Your task to perform on an android device: Open battery settings Image 0: 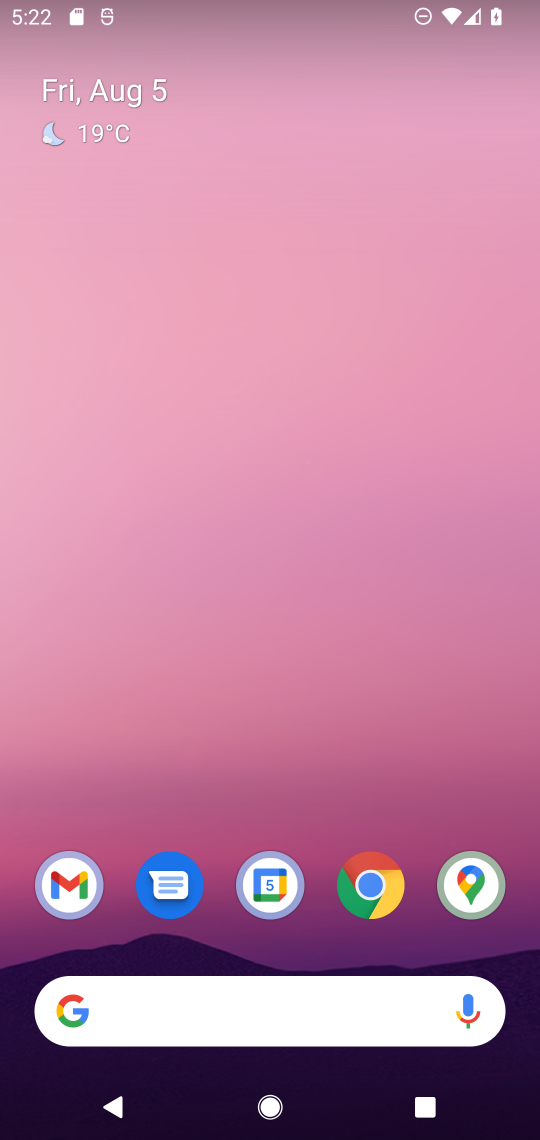
Step 0: drag from (305, 955) to (305, 38)
Your task to perform on an android device: Open battery settings Image 1: 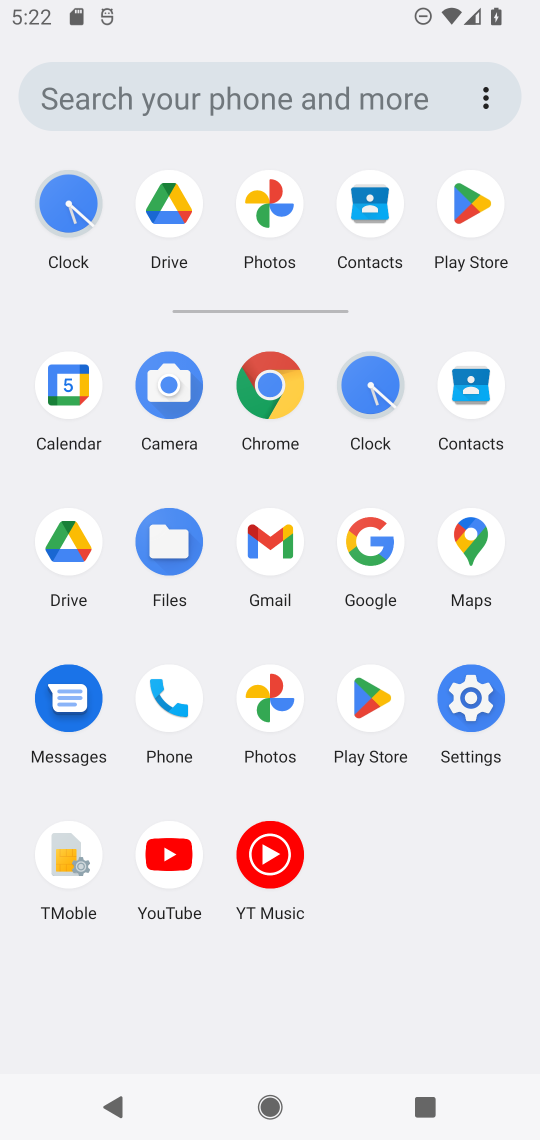
Step 1: click (484, 692)
Your task to perform on an android device: Open battery settings Image 2: 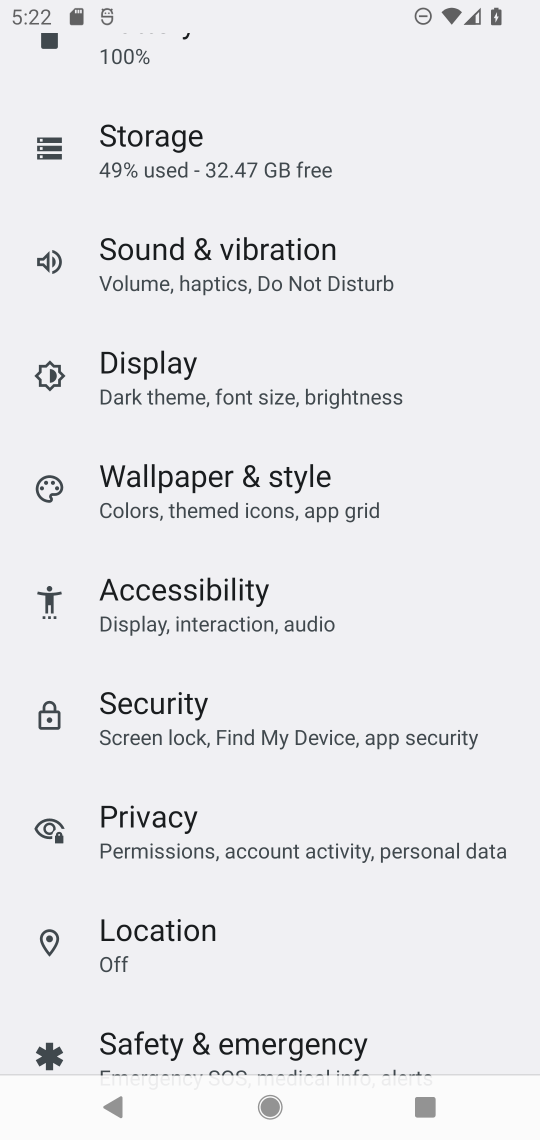
Step 2: drag from (190, 893) to (198, 432)
Your task to perform on an android device: Open battery settings Image 3: 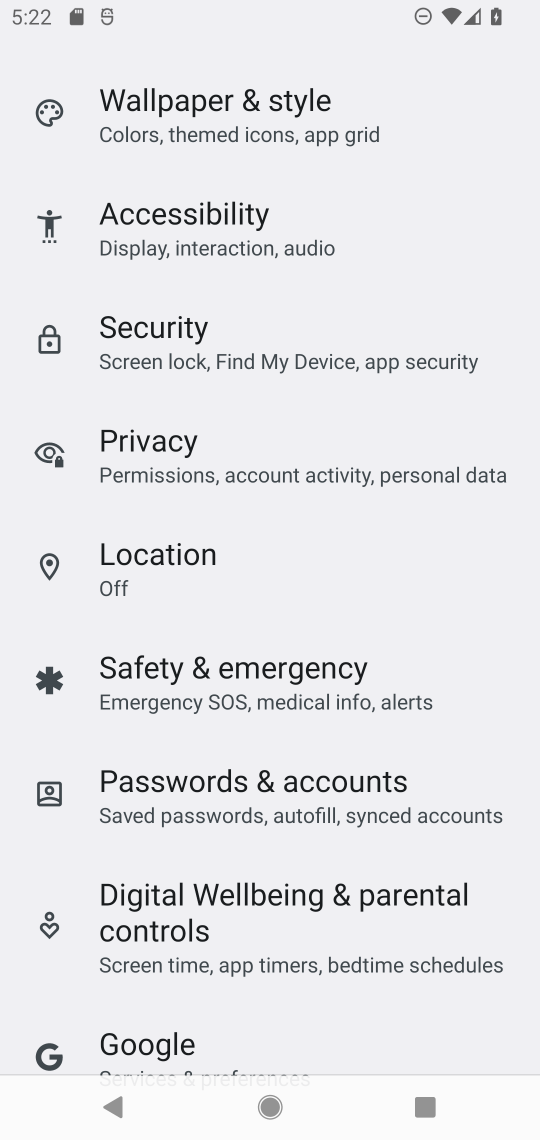
Step 3: drag from (291, 248) to (285, 843)
Your task to perform on an android device: Open battery settings Image 4: 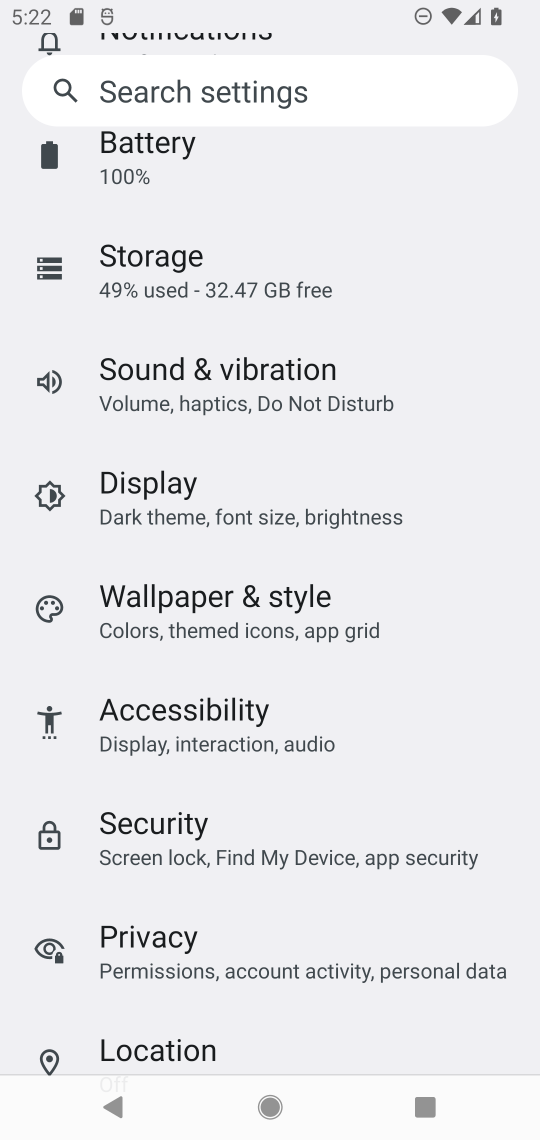
Step 4: drag from (208, 200) to (195, 698)
Your task to perform on an android device: Open battery settings Image 5: 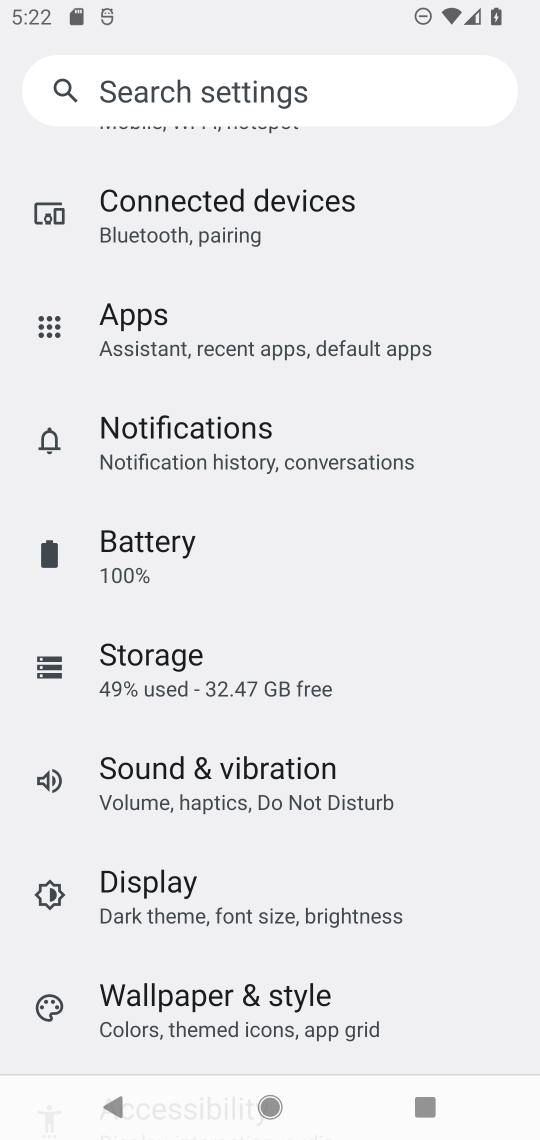
Step 5: click (135, 547)
Your task to perform on an android device: Open battery settings Image 6: 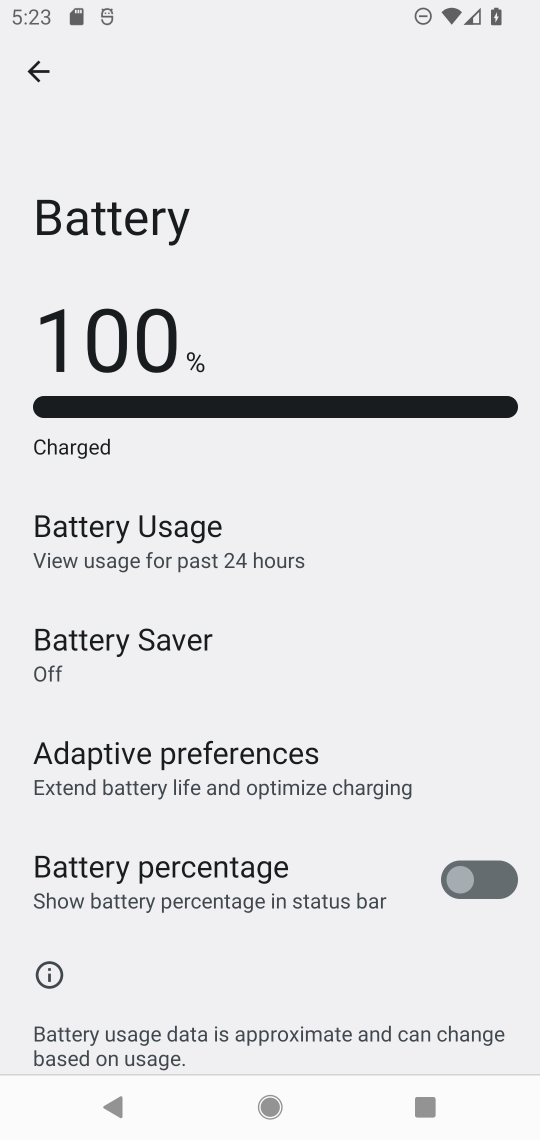
Step 6: task complete